Your task to perform on an android device: turn off wifi Image 0: 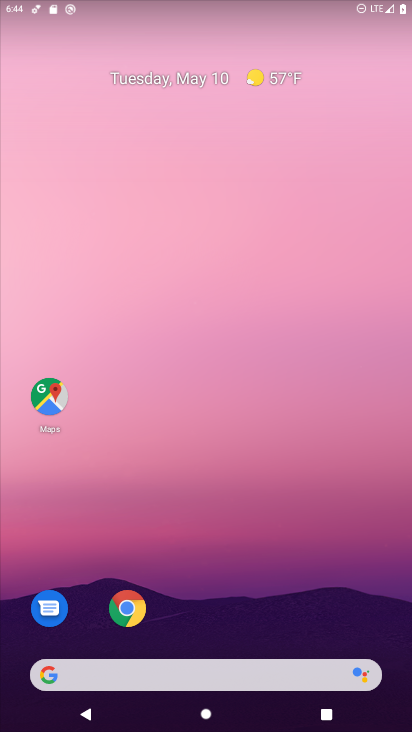
Step 0: drag from (290, 8) to (244, 458)
Your task to perform on an android device: turn off wifi Image 1: 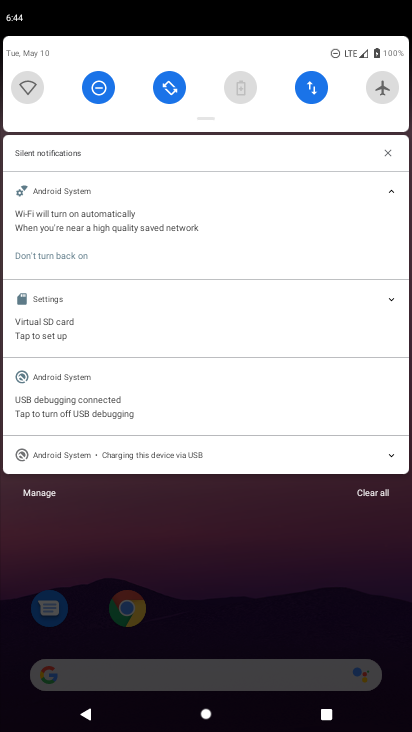
Step 1: task complete